Your task to perform on an android device: Is it going to rain tomorrow? Image 0: 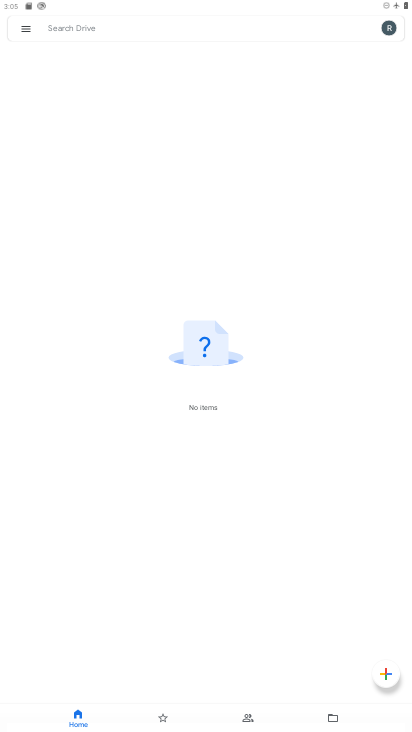
Step 0: press home button
Your task to perform on an android device: Is it going to rain tomorrow? Image 1: 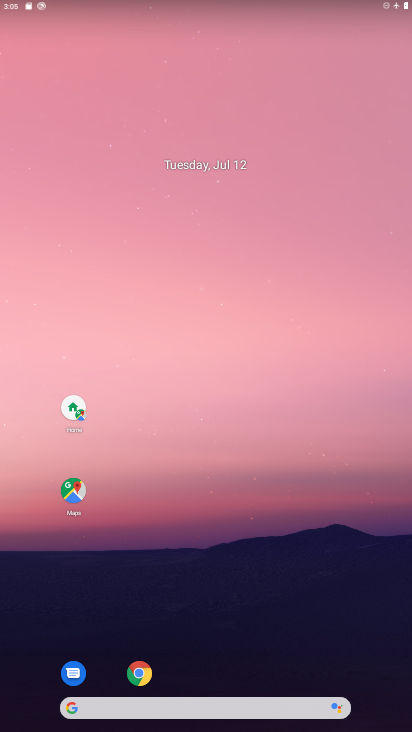
Step 1: drag from (154, 629) to (175, 316)
Your task to perform on an android device: Is it going to rain tomorrow? Image 2: 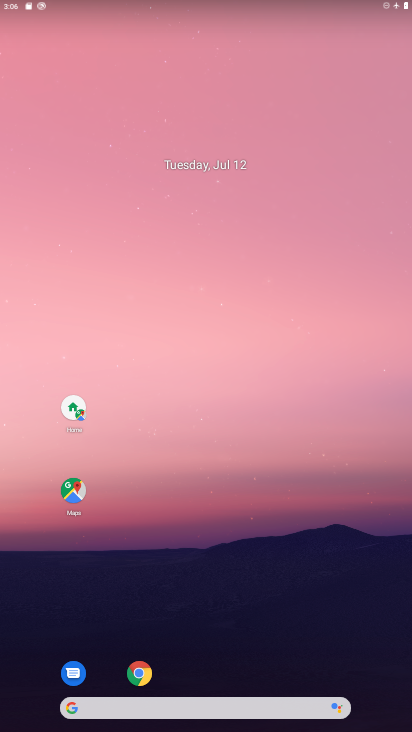
Step 2: drag from (268, 651) to (263, 128)
Your task to perform on an android device: Is it going to rain tomorrow? Image 3: 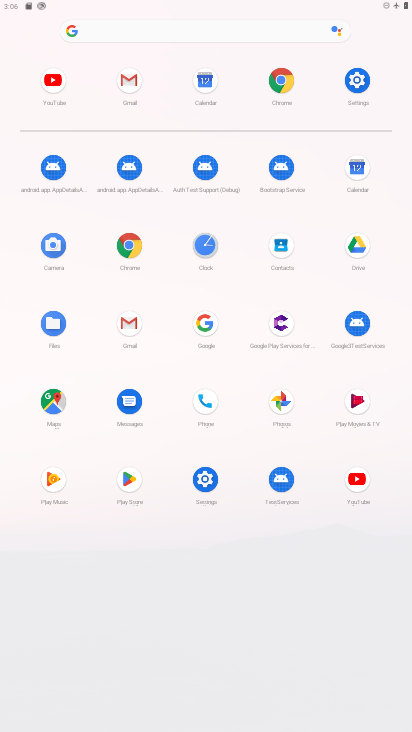
Step 3: click (114, 235)
Your task to perform on an android device: Is it going to rain tomorrow? Image 4: 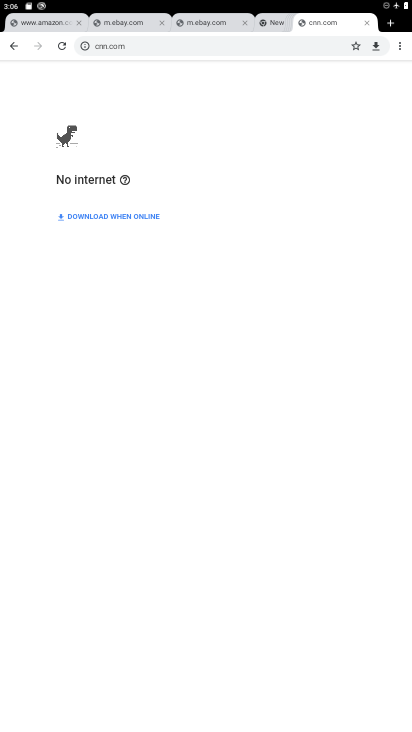
Step 4: click (160, 33)
Your task to perform on an android device: Is it going to rain tomorrow? Image 5: 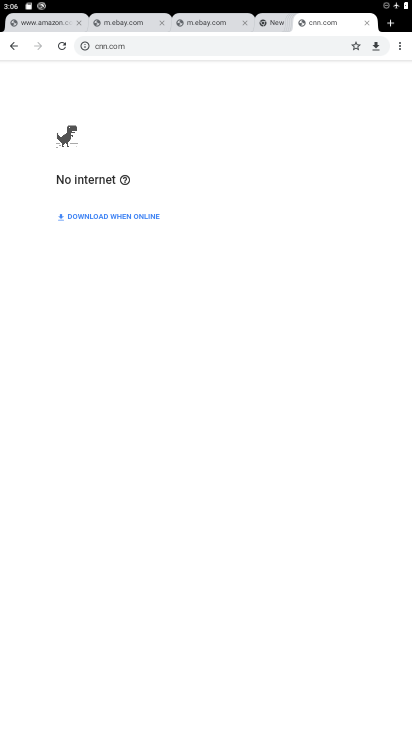
Step 5: click (162, 43)
Your task to perform on an android device: Is it going to rain tomorrow? Image 6: 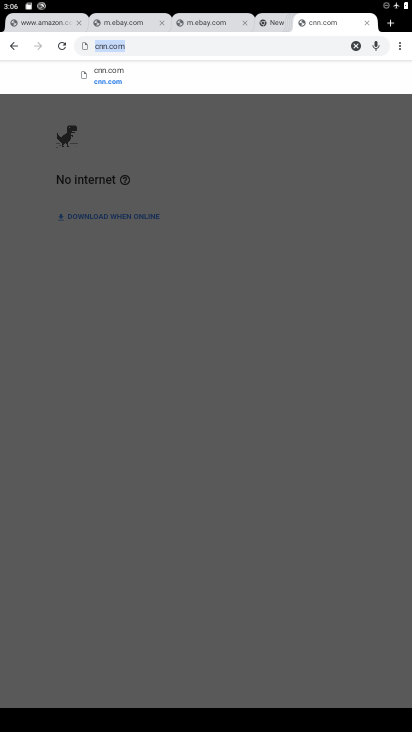
Step 6: click (232, 41)
Your task to perform on an android device: Is it going to rain tomorrow? Image 7: 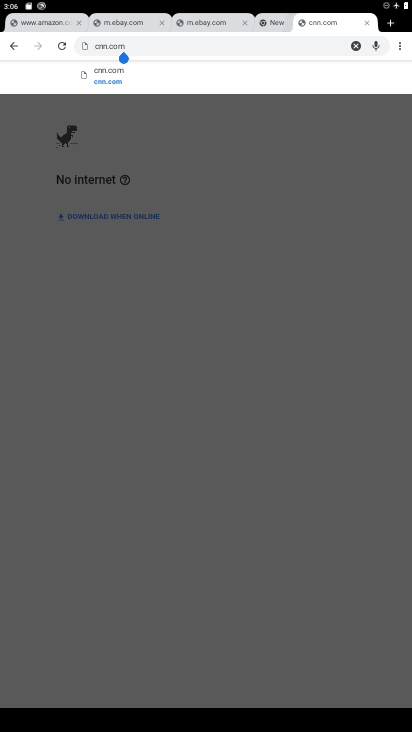
Step 7: click (352, 40)
Your task to perform on an android device: Is it going to rain tomorrow? Image 8: 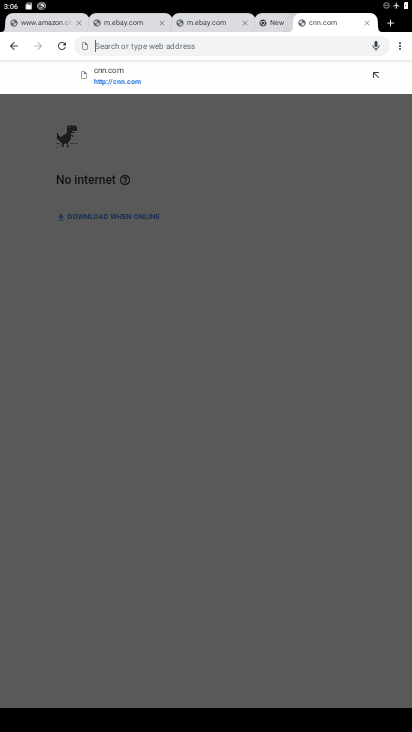
Step 8: click (230, 47)
Your task to perform on an android device: Is it going to rain tomorrow? Image 9: 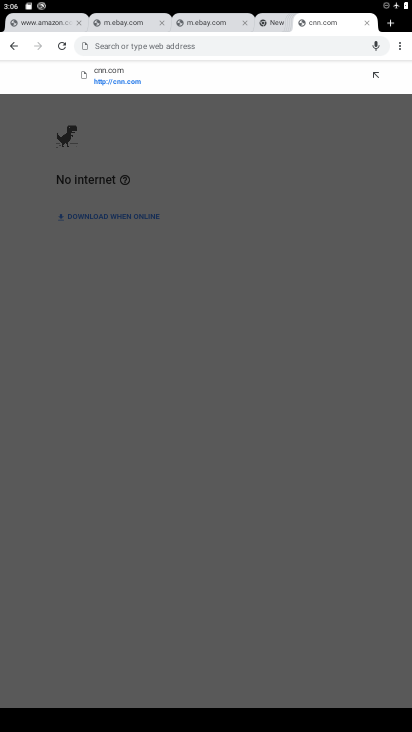
Step 9: click (245, 41)
Your task to perform on an android device: Is it going to rain tomorrow? Image 10: 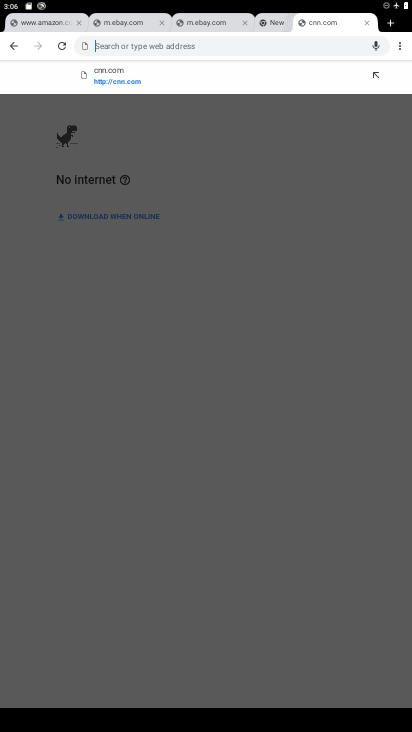
Step 10: type "Is it going to rain tomorrow "
Your task to perform on an android device: Is it going to rain tomorrow? Image 11: 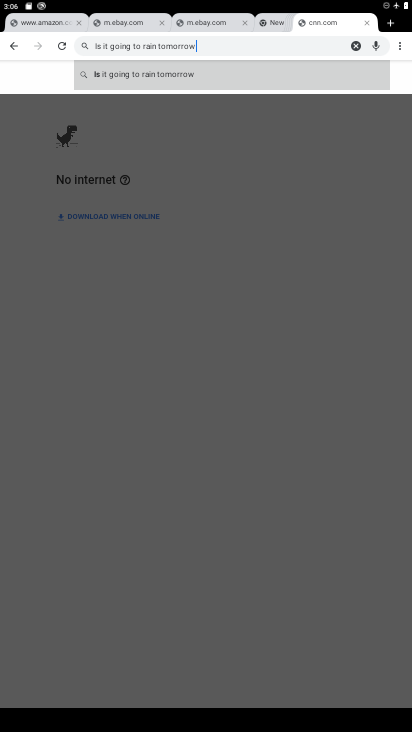
Step 11: click (161, 78)
Your task to perform on an android device: Is it going to rain tomorrow? Image 12: 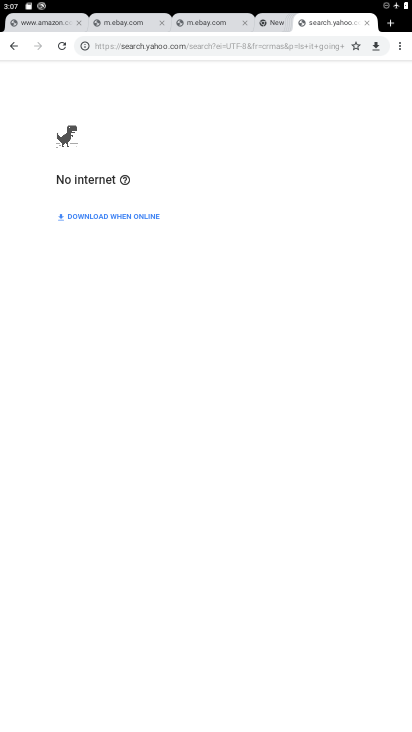
Step 12: task complete